Your task to perform on an android device: turn on wifi Image 0: 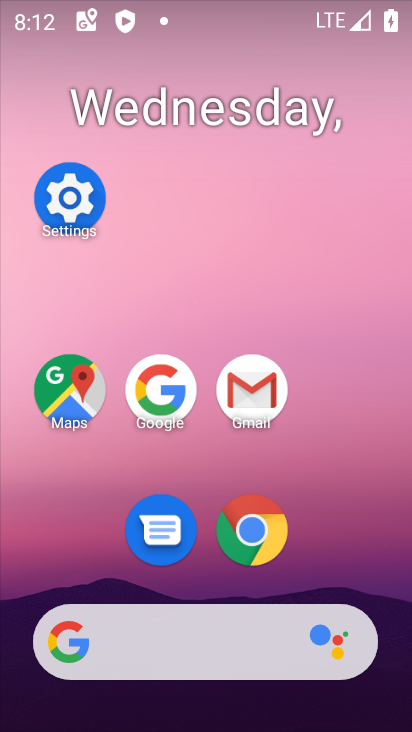
Step 0: click (69, 210)
Your task to perform on an android device: turn on wifi Image 1: 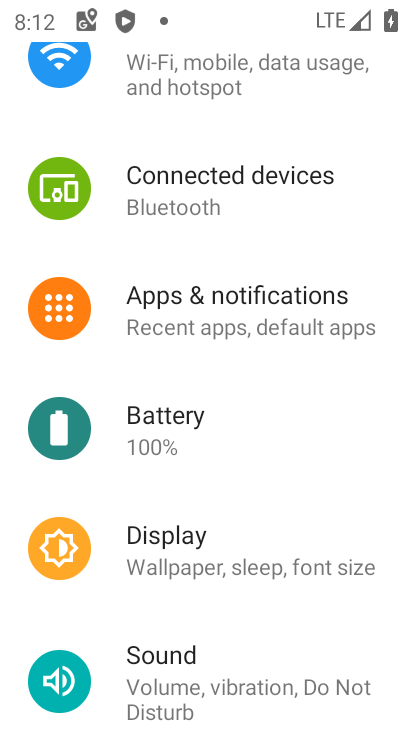
Step 1: click (309, 81)
Your task to perform on an android device: turn on wifi Image 2: 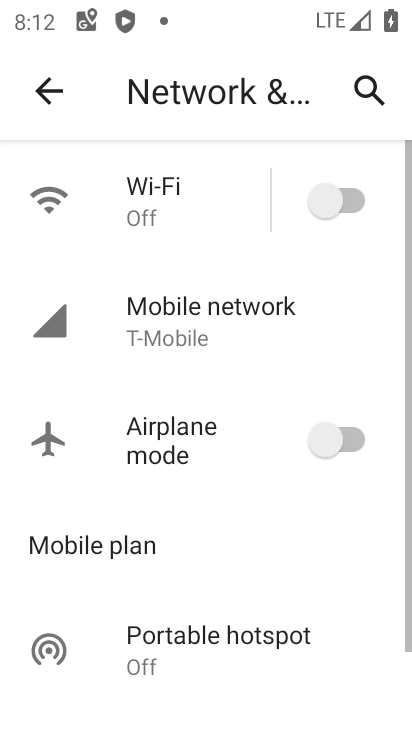
Step 2: click (347, 187)
Your task to perform on an android device: turn on wifi Image 3: 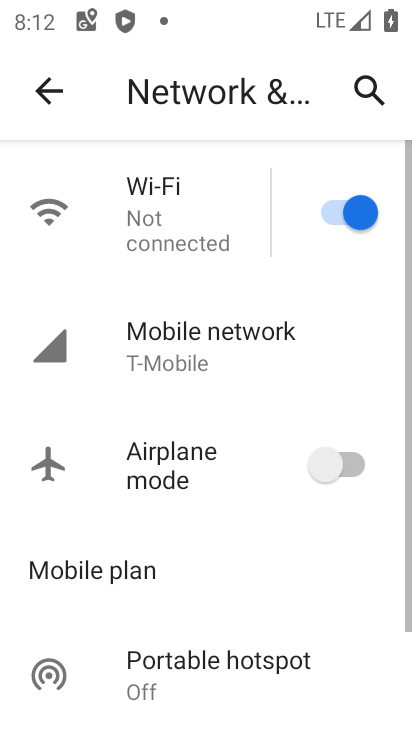
Step 3: task complete